Your task to perform on an android device: Open a new incognito tab in Chrome Image 0: 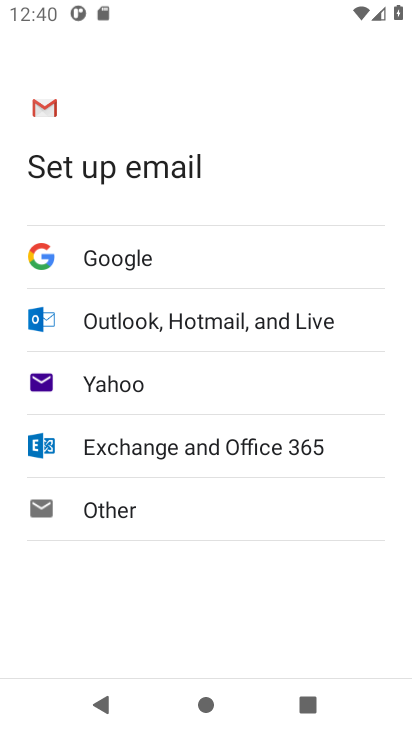
Step 0: press home button
Your task to perform on an android device: Open a new incognito tab in Chrome Image 1: 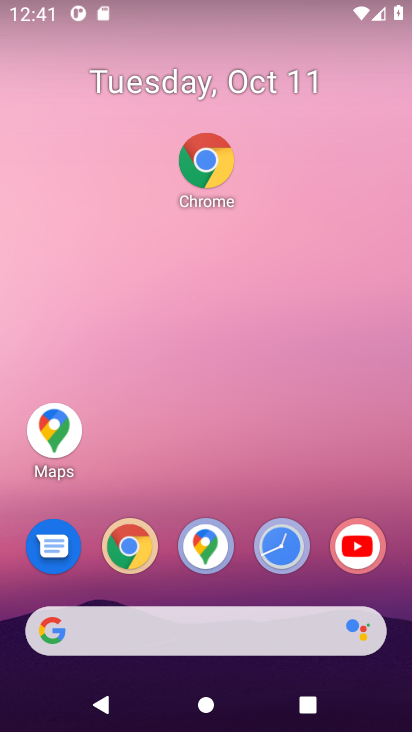
Step 1: click (121, 553)
Your task to perform on an android device: Open a new incognito tab in Chrome Image 2: 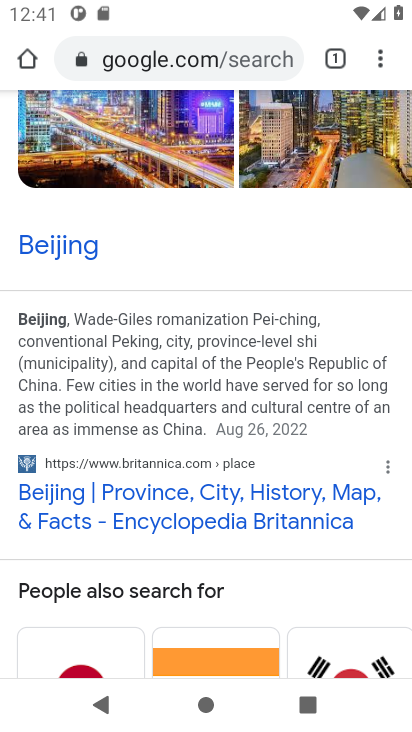
Step 2: click (375, 56)
Your task to perform on an android device: Open a new incognito tab in Chrome Image 3: 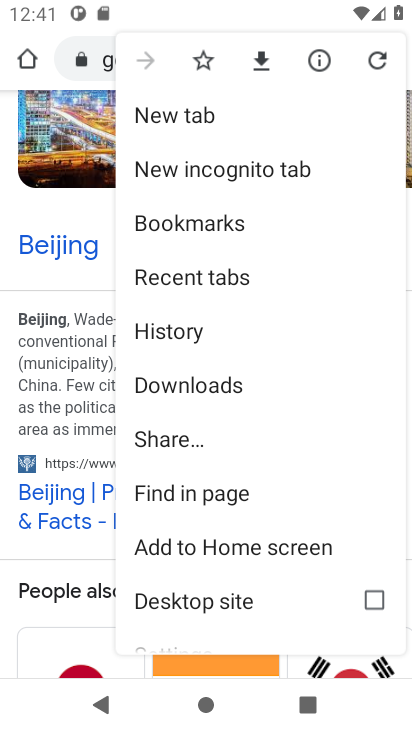
Step 3: click (235, 170)
Your task to perform on an android device: Open a new incognito tab in Chrome Image 4: 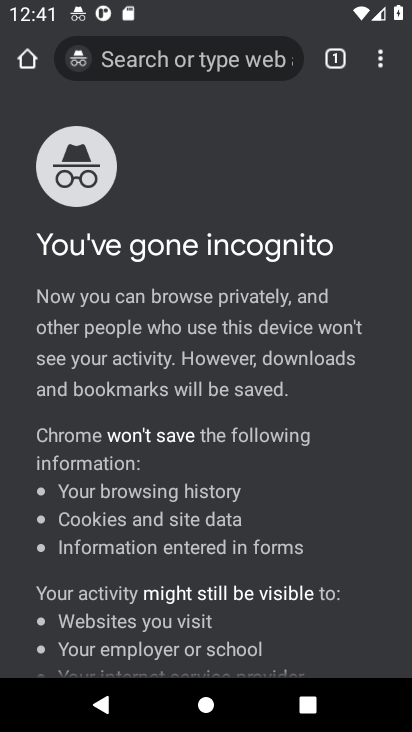
Step 4: task complete